Your task to perform on an android device: Go to Yahoo.com Image 0: 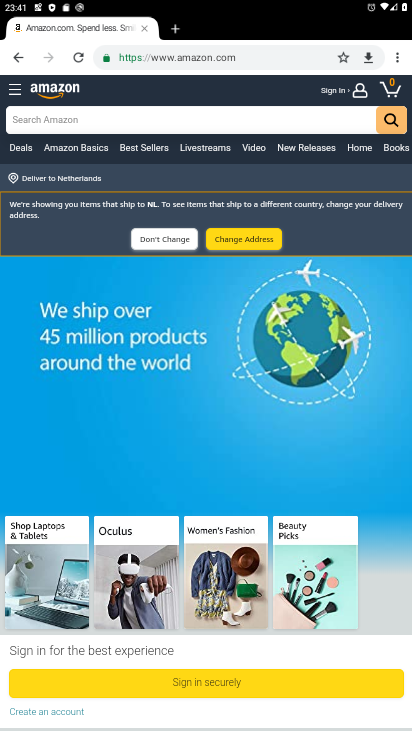
Step 0: click (180, 32)
Your task to perform on an android device: Go to Yahoo.com Image 1: 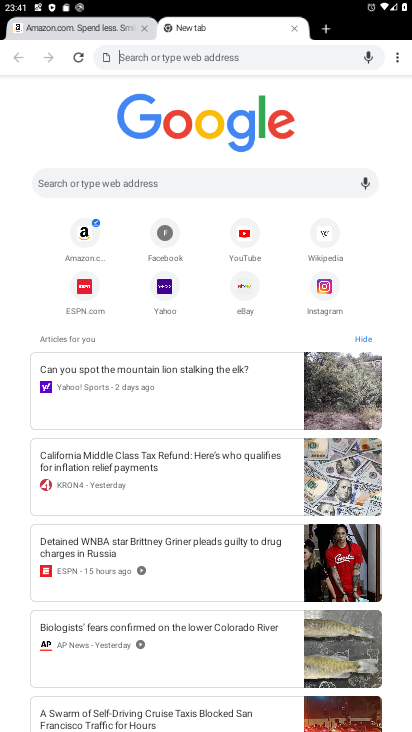
Step 1: click (158, 288)
Your task to perform on an android device: Go to Yahoo.com Image 2: 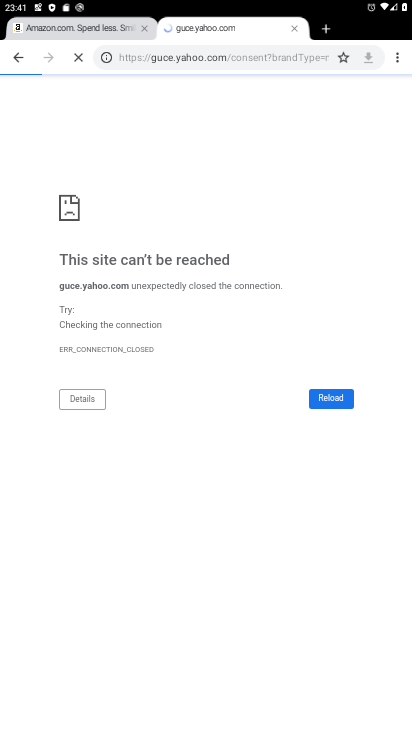
Step 2: task complete